Your task to perform on an android device: Is it going to rain today? Image 0: 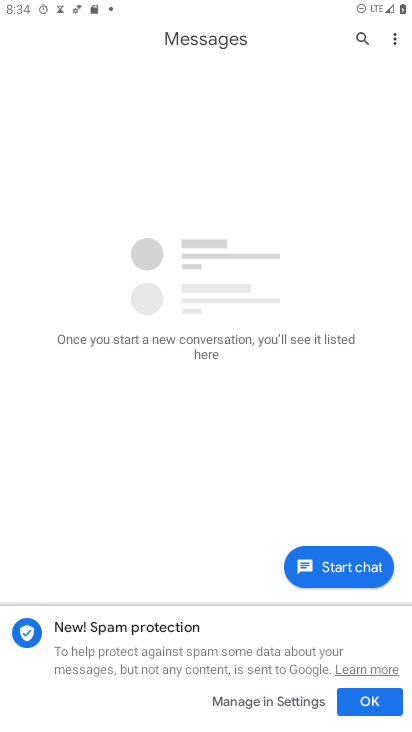
Step 0: press home button
Your task to perform on an android device: Is it going to rain today? Image 1: 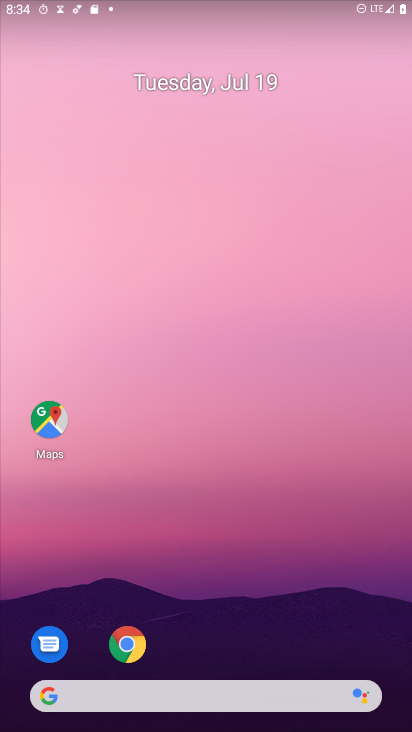
Step 1: click (114, 696)
Your task to perform on an android device: Is it going to rain today? Image 2: 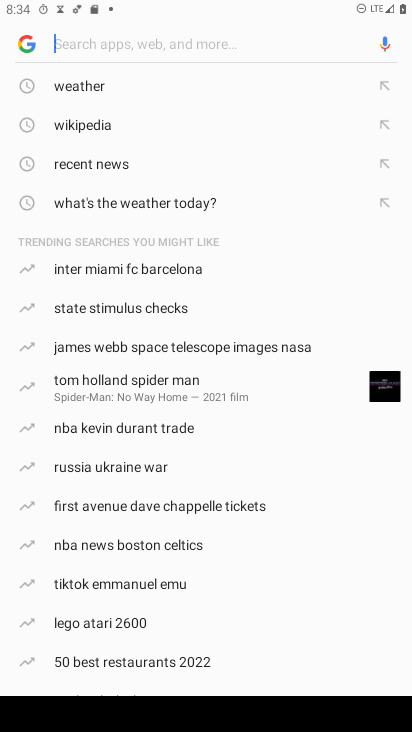
Step 2: type "Is it going to rain today?"
Your task to perform on an android device: Is it going to rain today? Image 3: 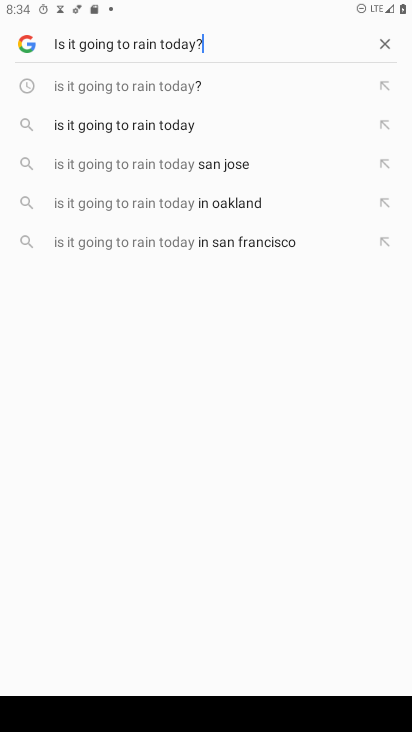
Step 3: type ""
Your task to perform on an android device: Is it going to rain today? Image 4: 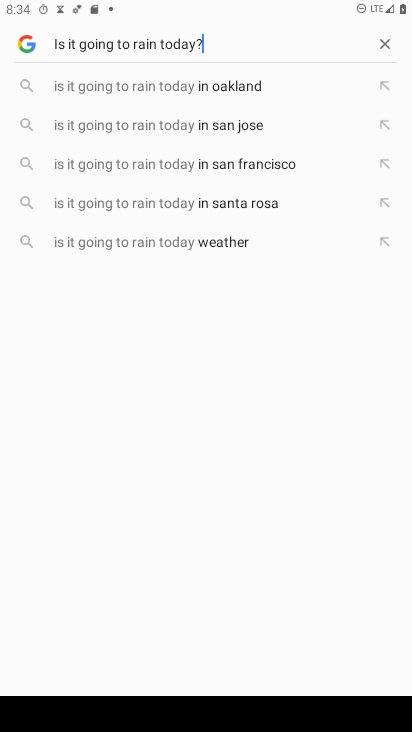
Step 4: type ""
Your task to perform on an android device: Is it going to rain today? Image 5: 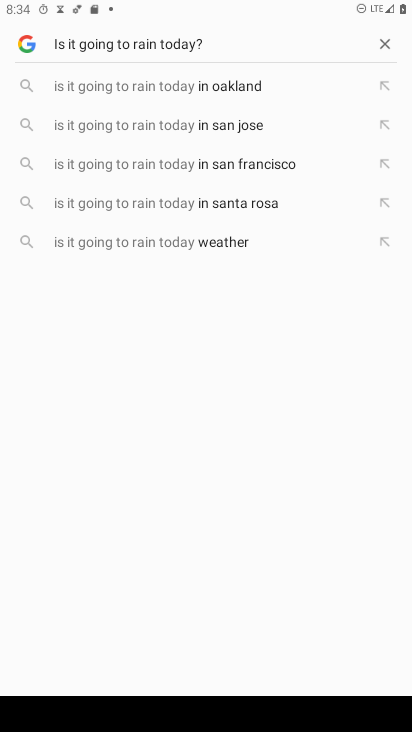
Step 5: type ""
Your task to perform on an android device: Is it going to rain today? Image 6: 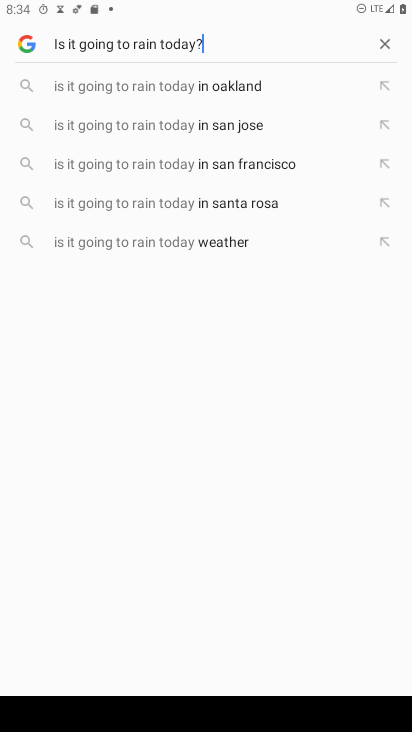
Step 6: task complete